Your task to perform on an android device: Open Amazon Image 0: 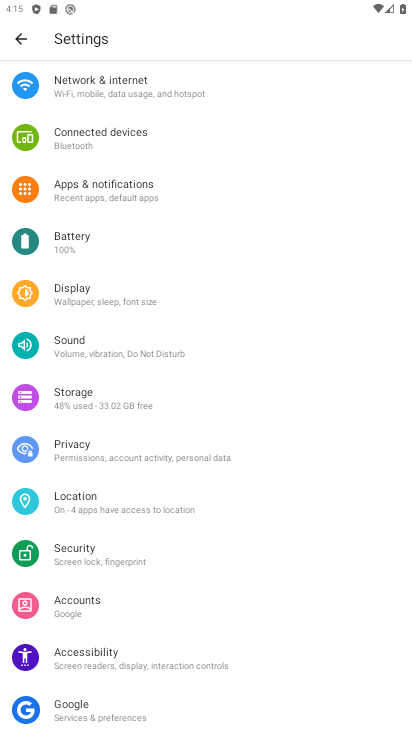
Step 0: press home button
Your task to perform on an android device: Open Amazon Image 1: 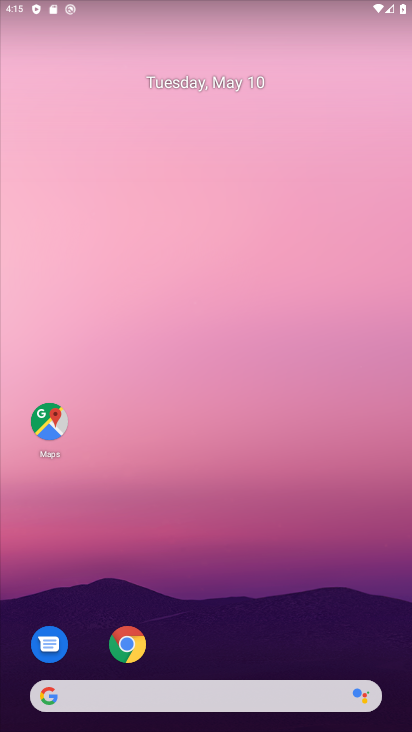
Step 1: click (113, 634)
Your task to perform on an android device: Open Amazon Image 2: 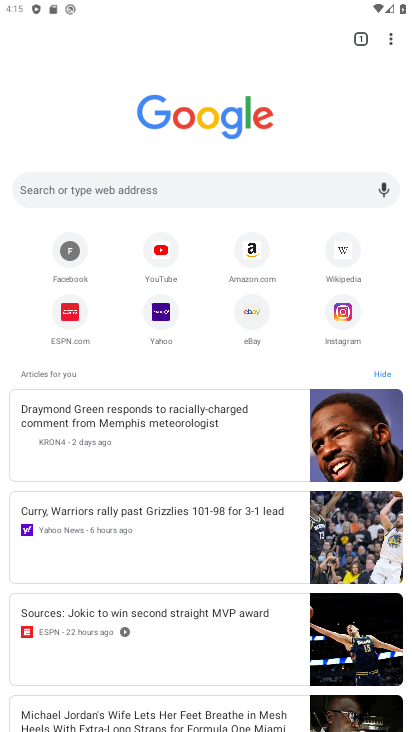
Step 2: click (261, 265)
Your task to perform on an android device: Open Amazon Image 3: 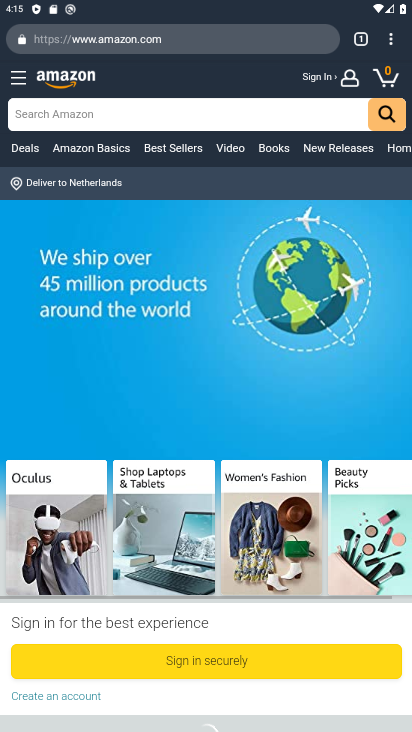
Step 3: task complete